Your task to perform on an android device: toggle notifications settings in the gmail app Image 0: 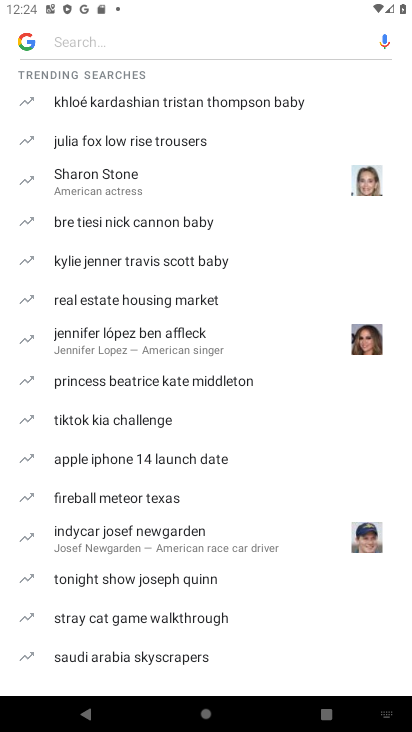
Step 0: press home button
Your task to perform on an android device: toggle notifications settings in the gmail app Image 1: 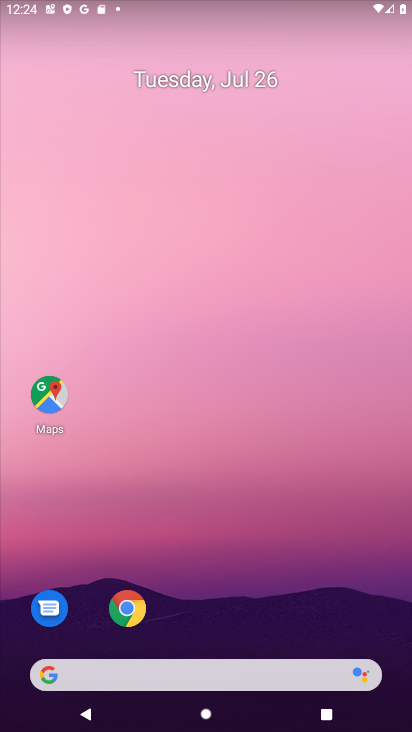
Step 1: drag from (235, 614) to (180, 124)
Your task to perform on an android device: toggle notifications settings in the gmail app Image 2: 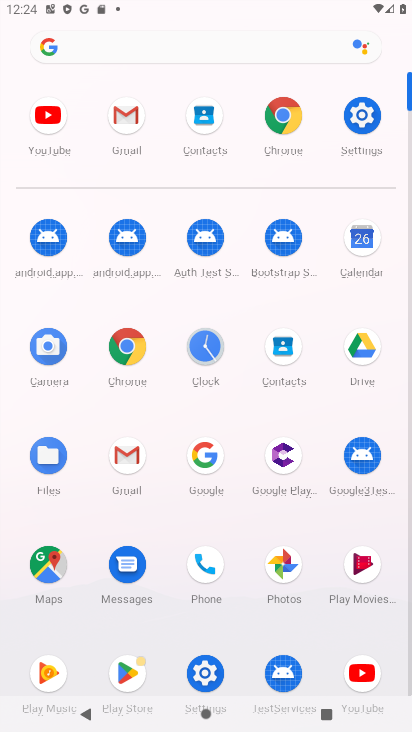
Step 2: click (358, 133)
Your task to perform on an android device: toggle notifications settings in the gmail app Image 3: 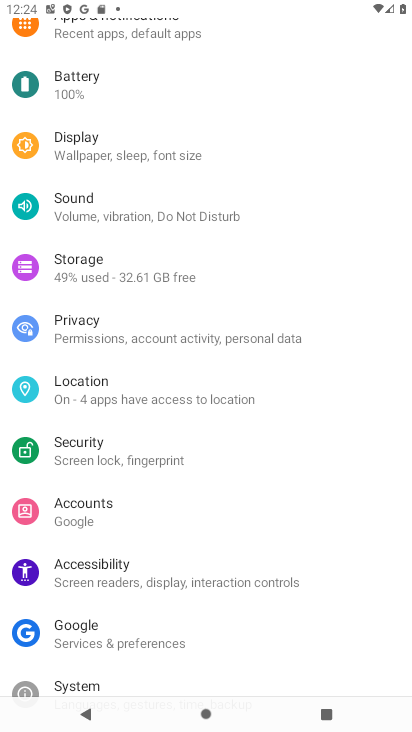
Step 3: drag from (121, 82) to (153, 639)
Your task to perform on an android device: toggle notifications settings in the gmail app Image 4: 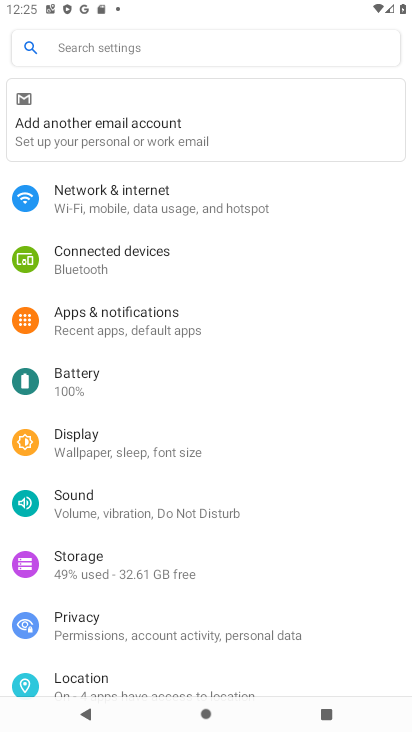
Step 4: click (111, 327)
Your task to perform on an android device: toggle notifications settings in the gmail app Image 5: 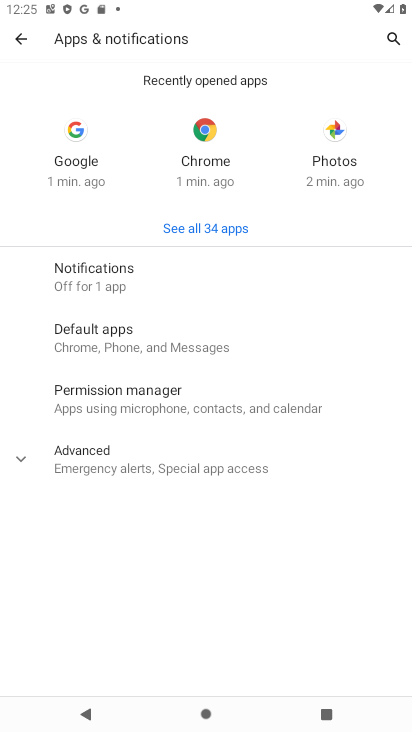
Step 5: click (216, 225)
Your task to perform on an android device: toggle notifications settings in the gmail app Image 6: 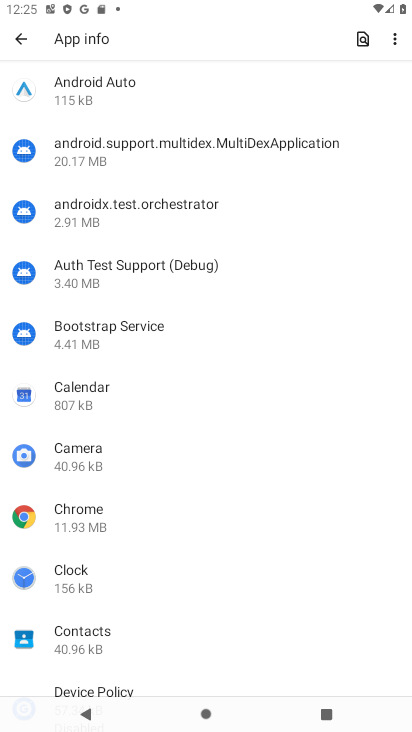
Step 6: drag from (100, 651) to (106, 196)
Your task to perform on an android device: toggle notifications settings in the gmail app Image 7: 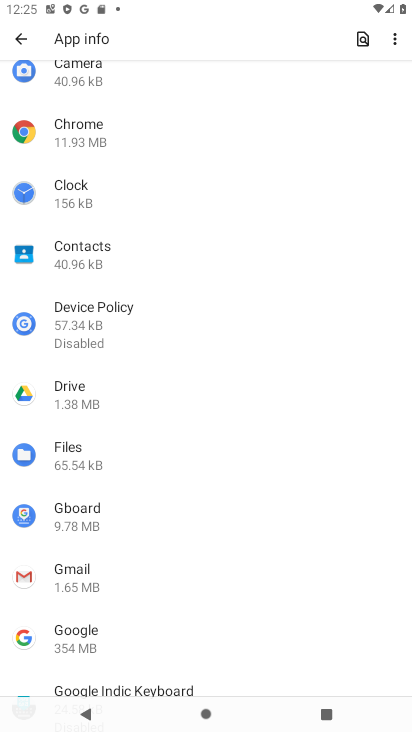
Step 7: click (72, 579)
Your task to perform on an android device: toggle notifications settings in the gmail app Image 8: 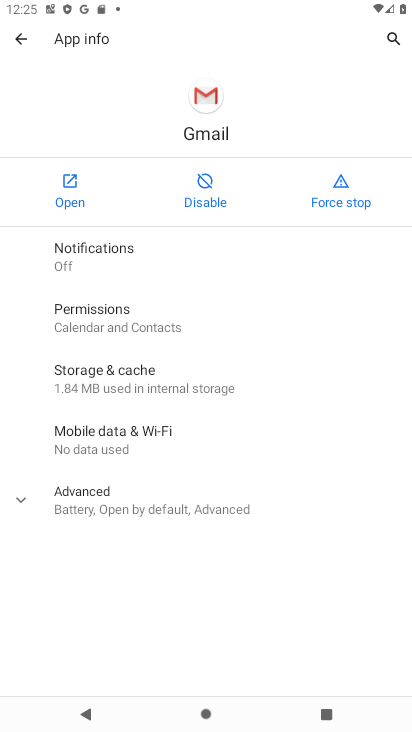
Step 8: click (114, 263)
Your task to perform on an android device: toggle notifications settings in the gmail app Image 9: 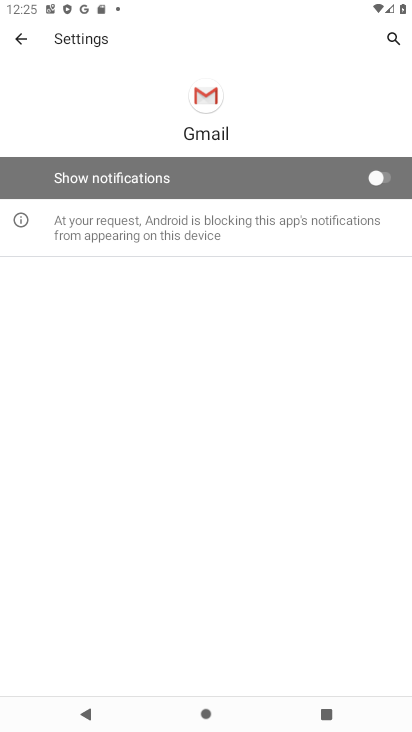
Step 9: click (381, 188)
Your task to perform on an android device: toggle notifications settings in the gmail app Image 10: 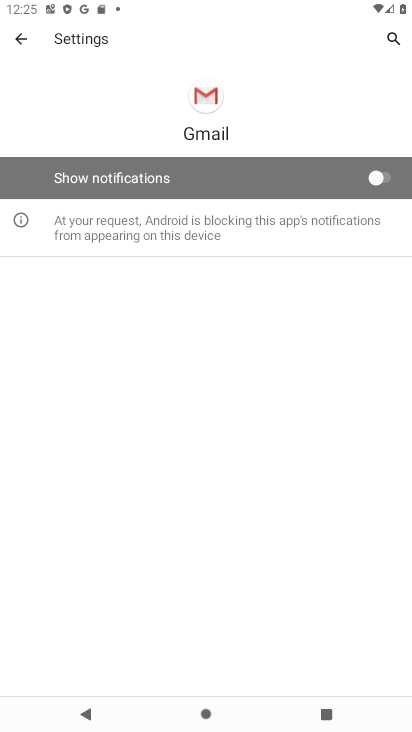
Step 10: click (381, 188)
Your task to perform on an android device: toggle notifications settings in the gmail app Image 11: 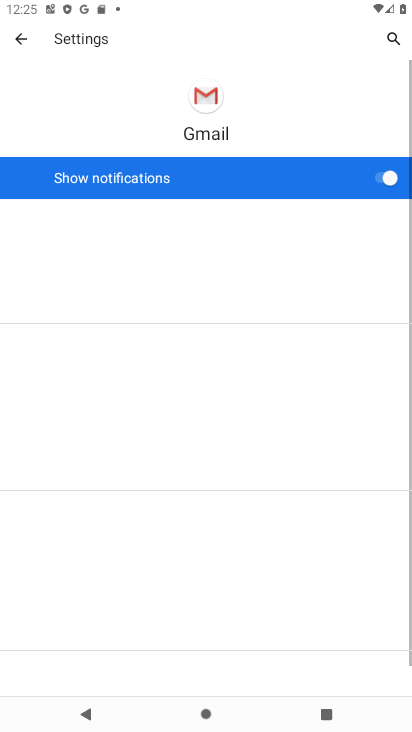
Step 11: click (381, 188)
Your task to perform on an android device: toggle notifications settings in the gmail app Image 12: 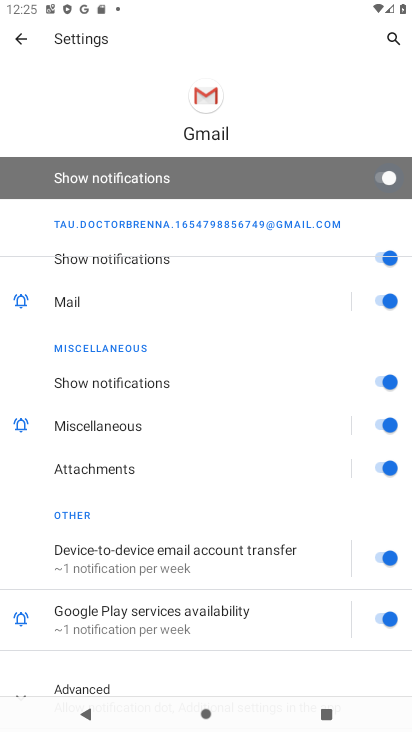
Step 12: click (381, 188)
Your task to perform on an android device: toggle notifications settings in the gmail app Image 13: 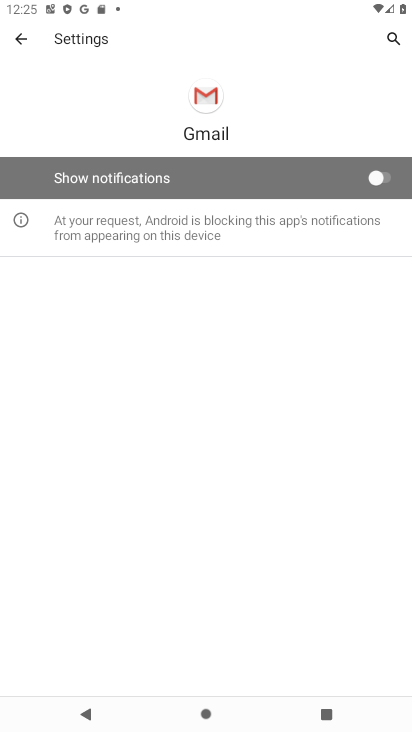
Step 13: task complete